Your task to perform on an android device: Open settings Image 0: 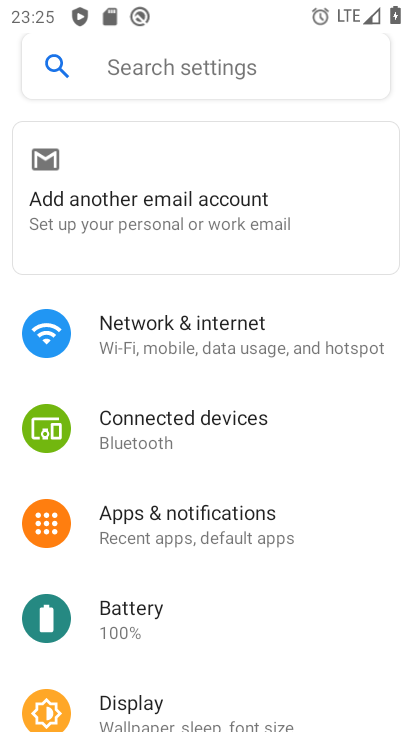
Step 0: drag from (289, 585) to (261, 49)
Your task to perform on an android device: Open settings Image 1: 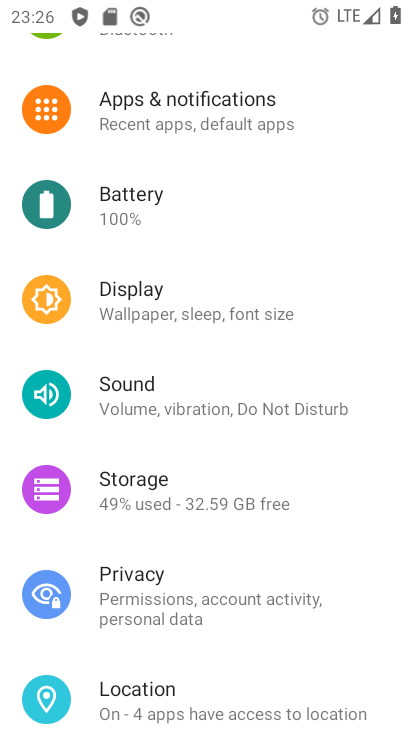
Step 1: task complete